Your task to perform on an android device: Go to battery settings Image 0: 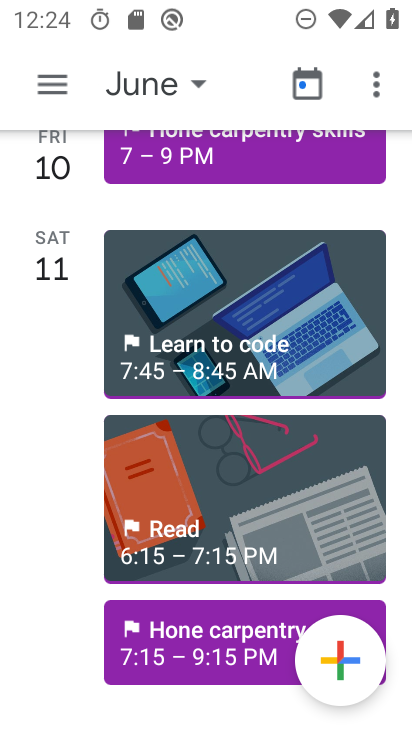
Step 0: press home button
Your task to perform on an android device: Go to battery settings Image 1: 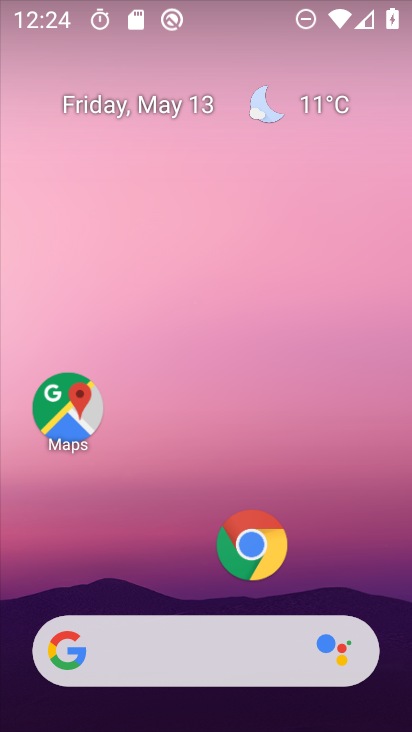
Step 1: drag from (196, 587) to (227, 135)
Your task to perform on an android device: Go to battery settings Image 2: 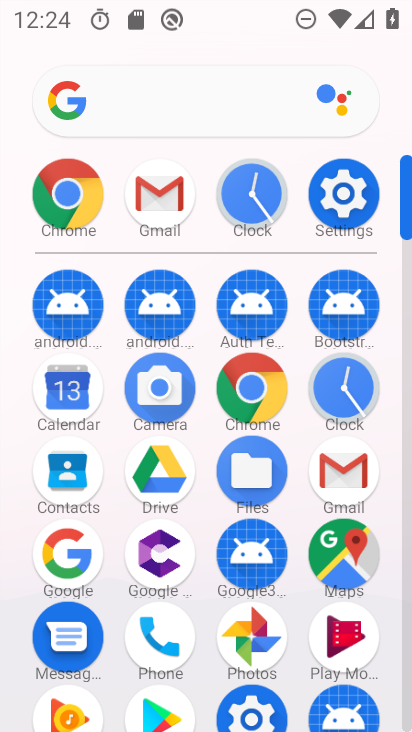
Step 2: click (340, 188)
Your task to perform on an android device: Go to battery settings Image 3: 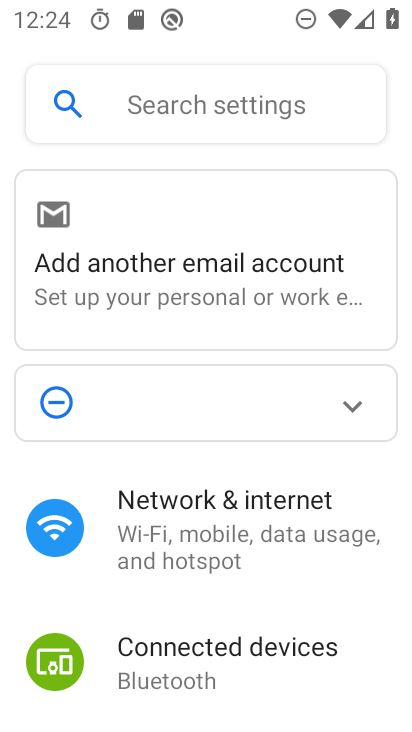
Step 3: drag from (202, 708) to (214, 121)
Your task to perform on an android device: Go to battery settings Image 4: 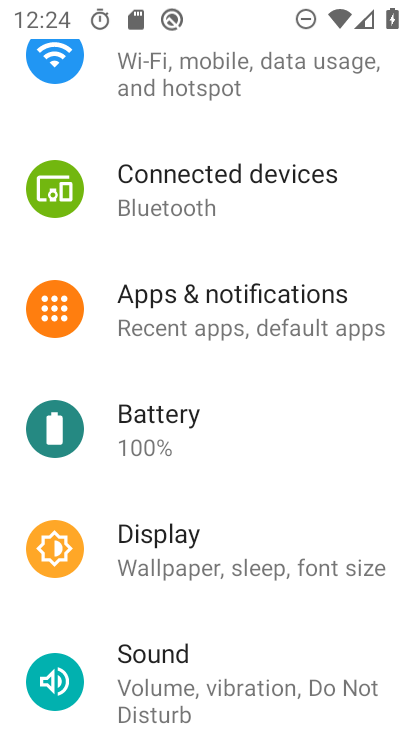
Step 4: click (98, 420)
Your task to perform on an android device: Go to battery settings Image 5: 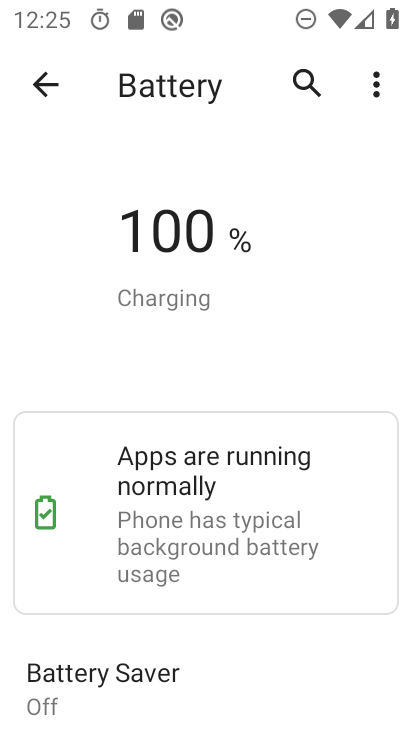
Step 5: task complete